Your task to perform on an android device: uninstall "Viber Messenger" Image 0: 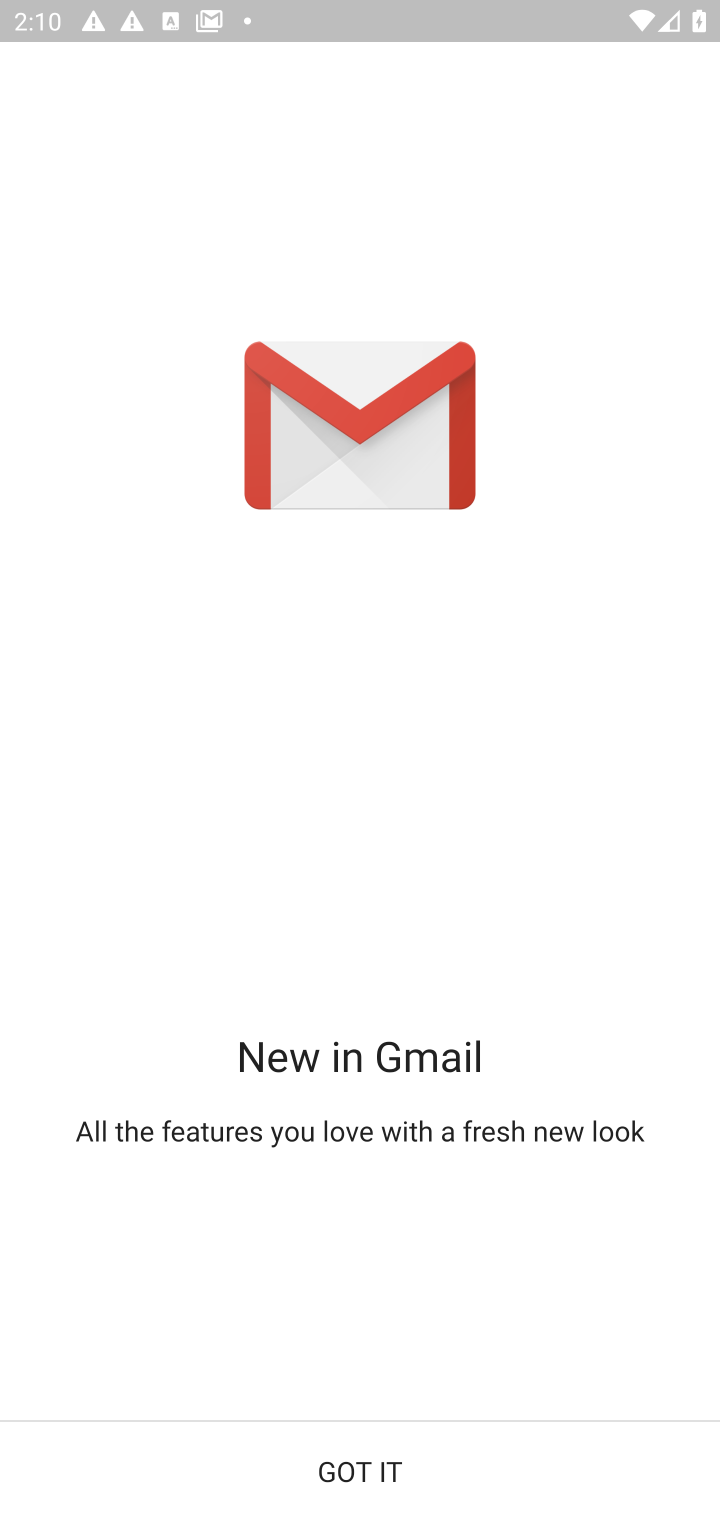
Step 0: press home button
Your task to perform on an android device: uninstall "Viber Messenger" Image 1: 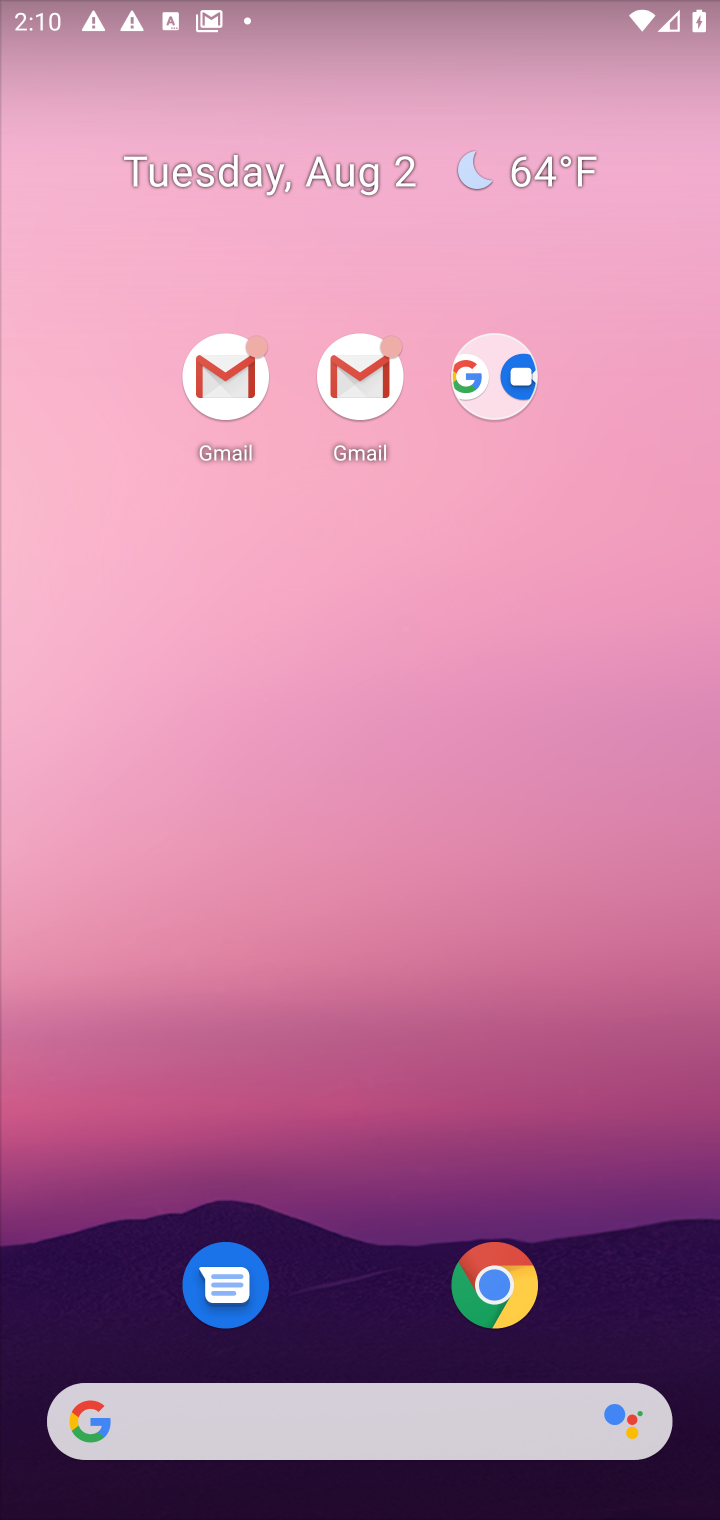
Step 1: click (377, 919)
Your task to perform on an android device: uninstall "Viber Messenger" Image 2: 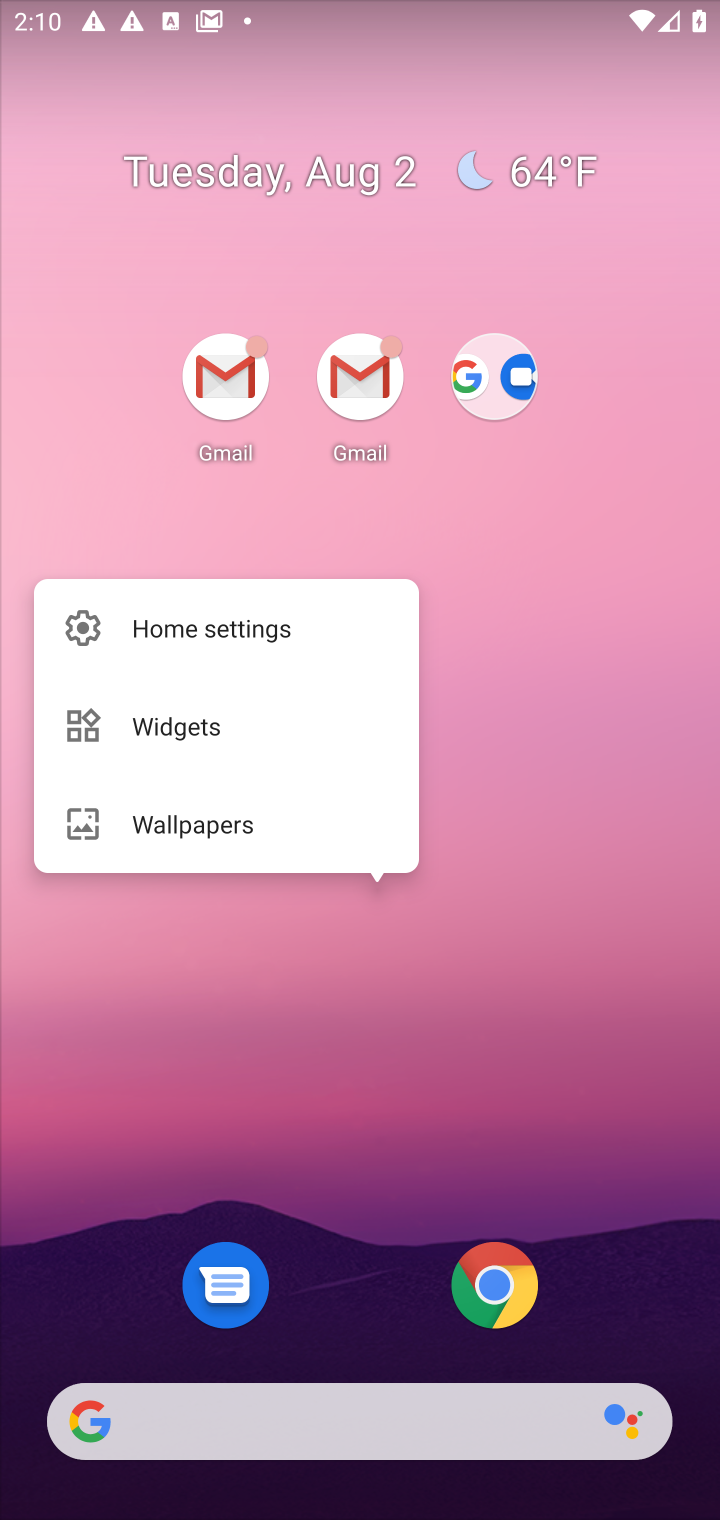
Step 2: drag from (353, 736) to (357, 406)
Your task to perform on an android device: uninstall "Viber Messenger" Image 3: 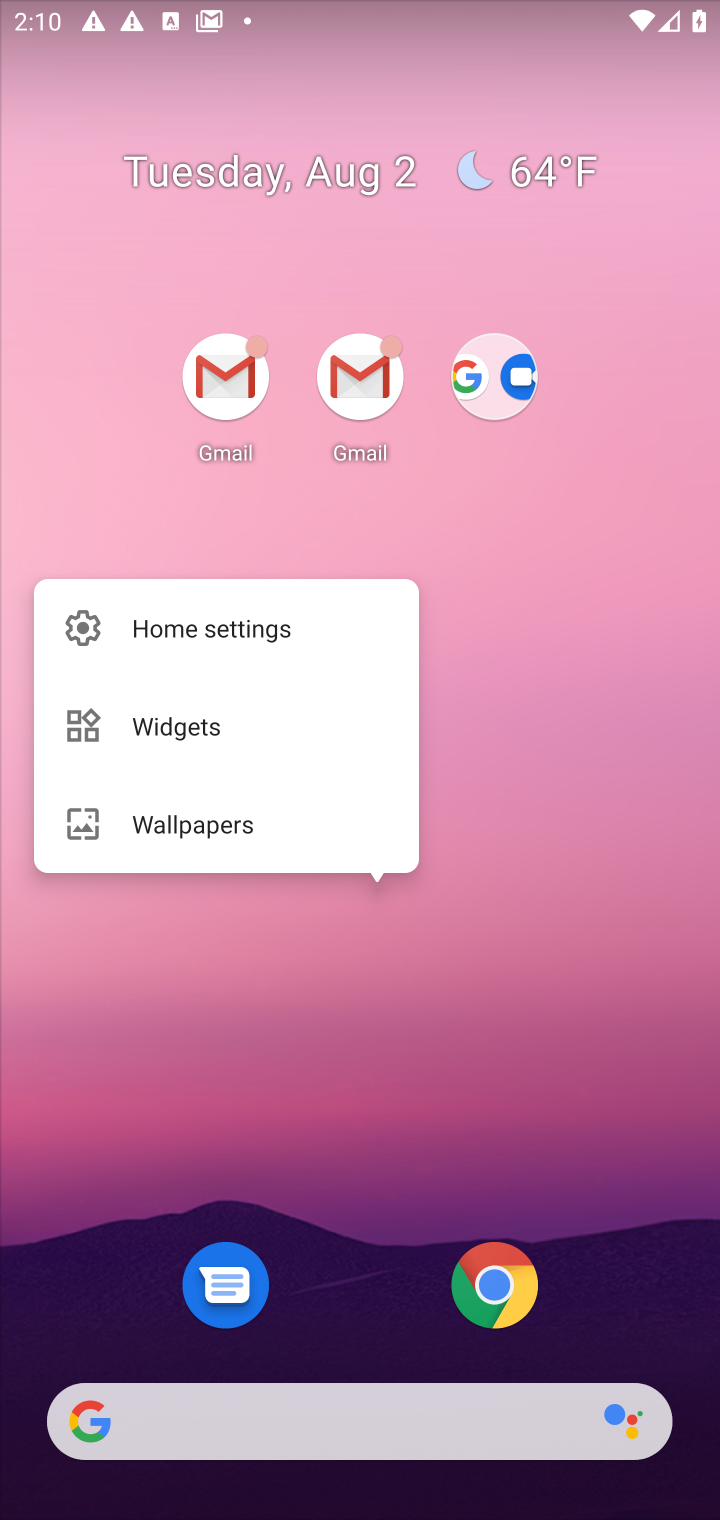
Step 3: click (528, 905)
Your task to perform on an android device: uninstall "Viber Messenger" Image 4: 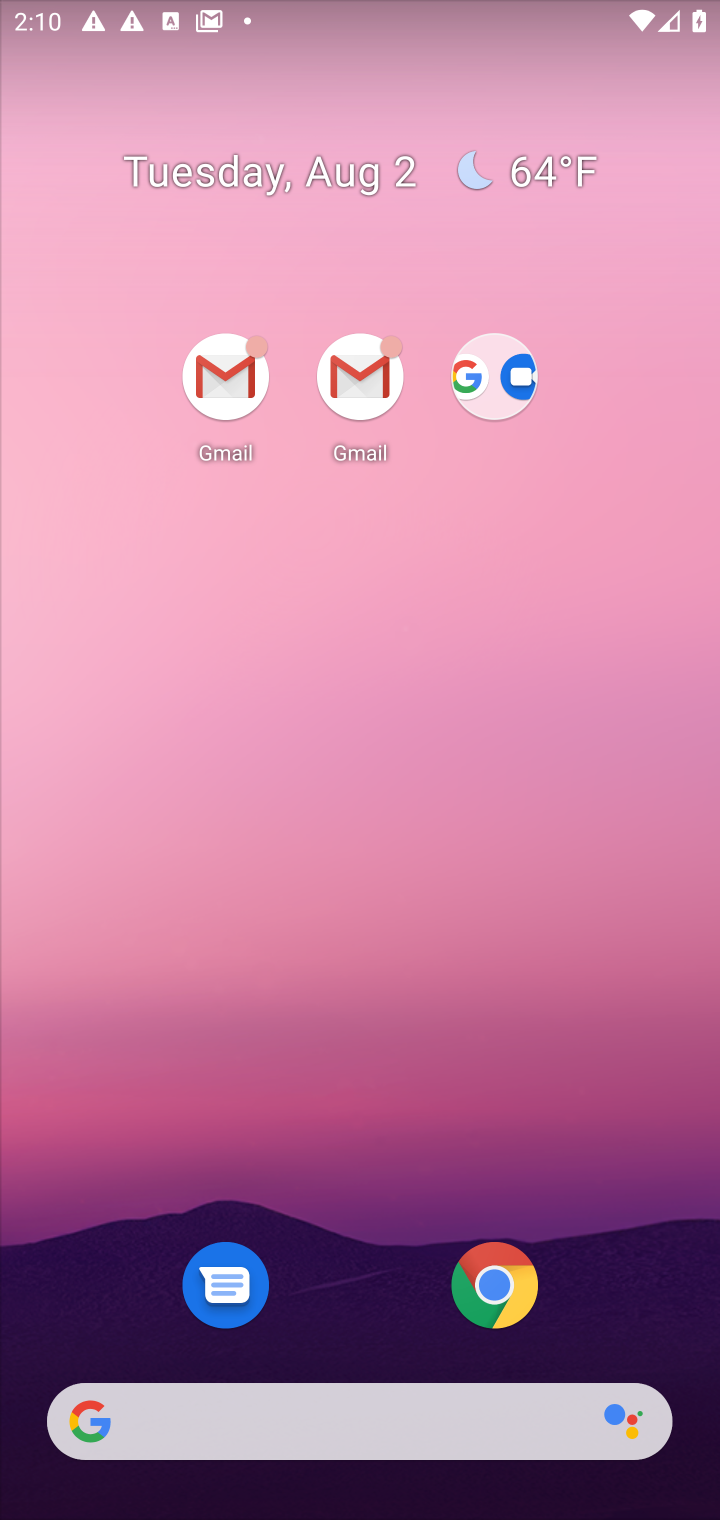
Step 4: click (528, 905)
Your task to perform on an android device: uninstall "Viber Messenger" Image 5: 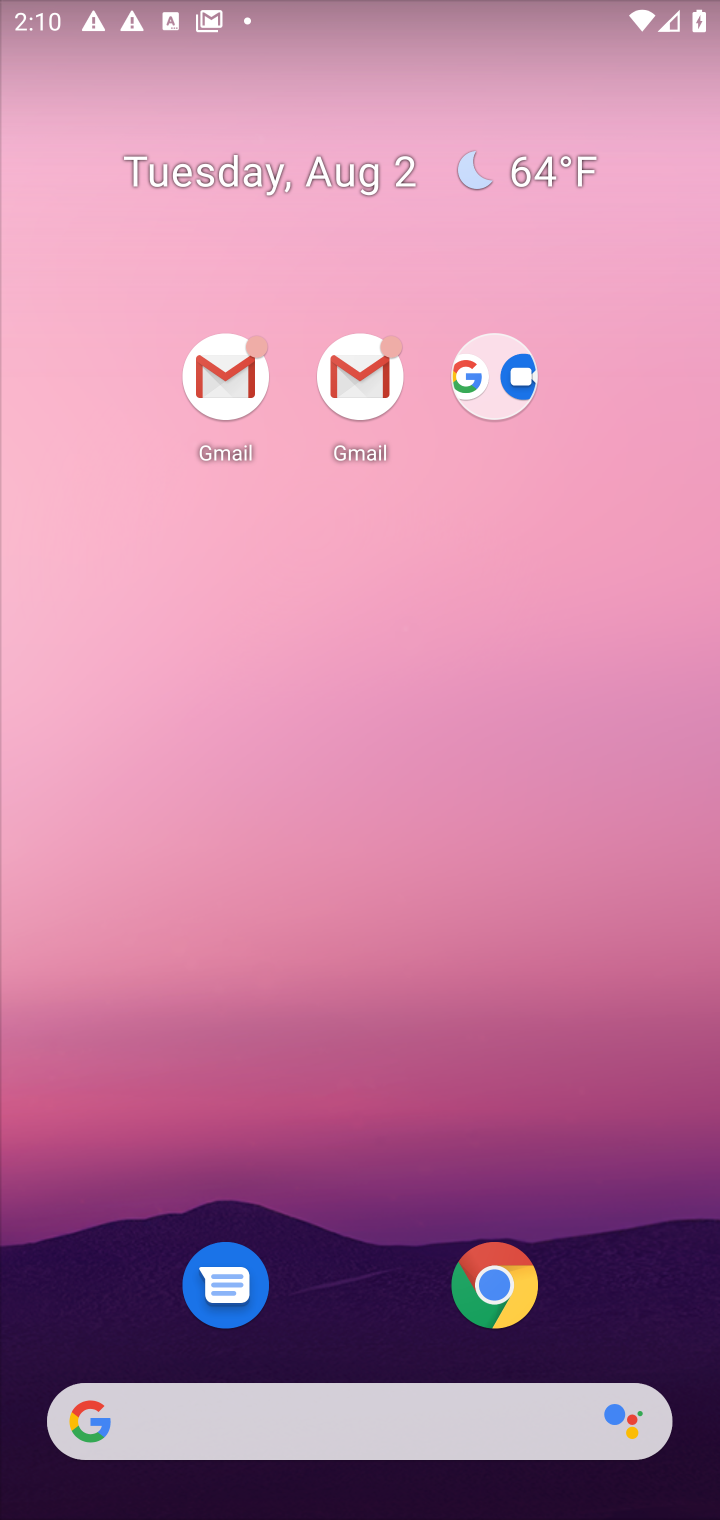
Step 5: drag from (330, 1234) to (413, 85)
Your task to perform on an android device: uninstall "Viber Messenger" Image 6: 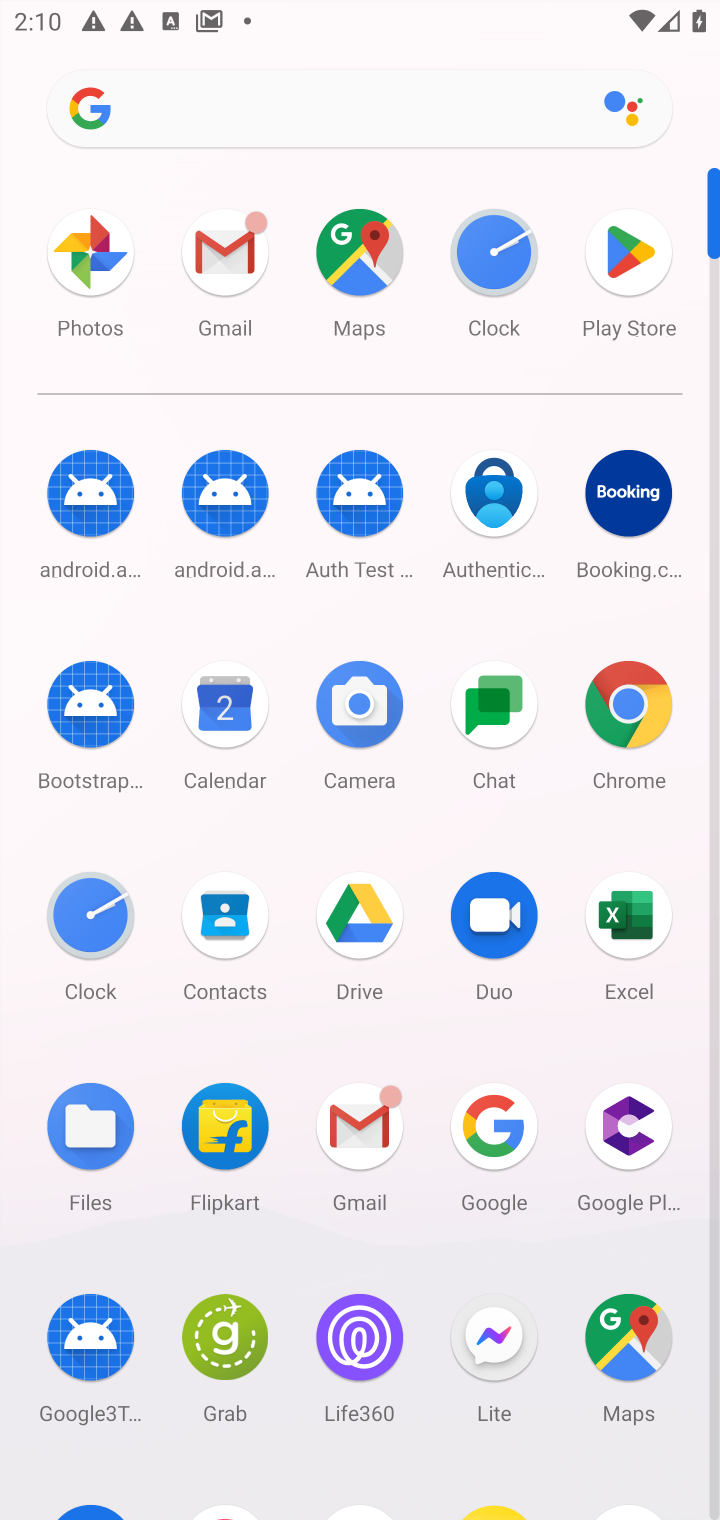
Step 6: drag from (428, 1117) to (524, 315)
Your task to perform on an android device: uninstall "Viber Messenger" Image 7: 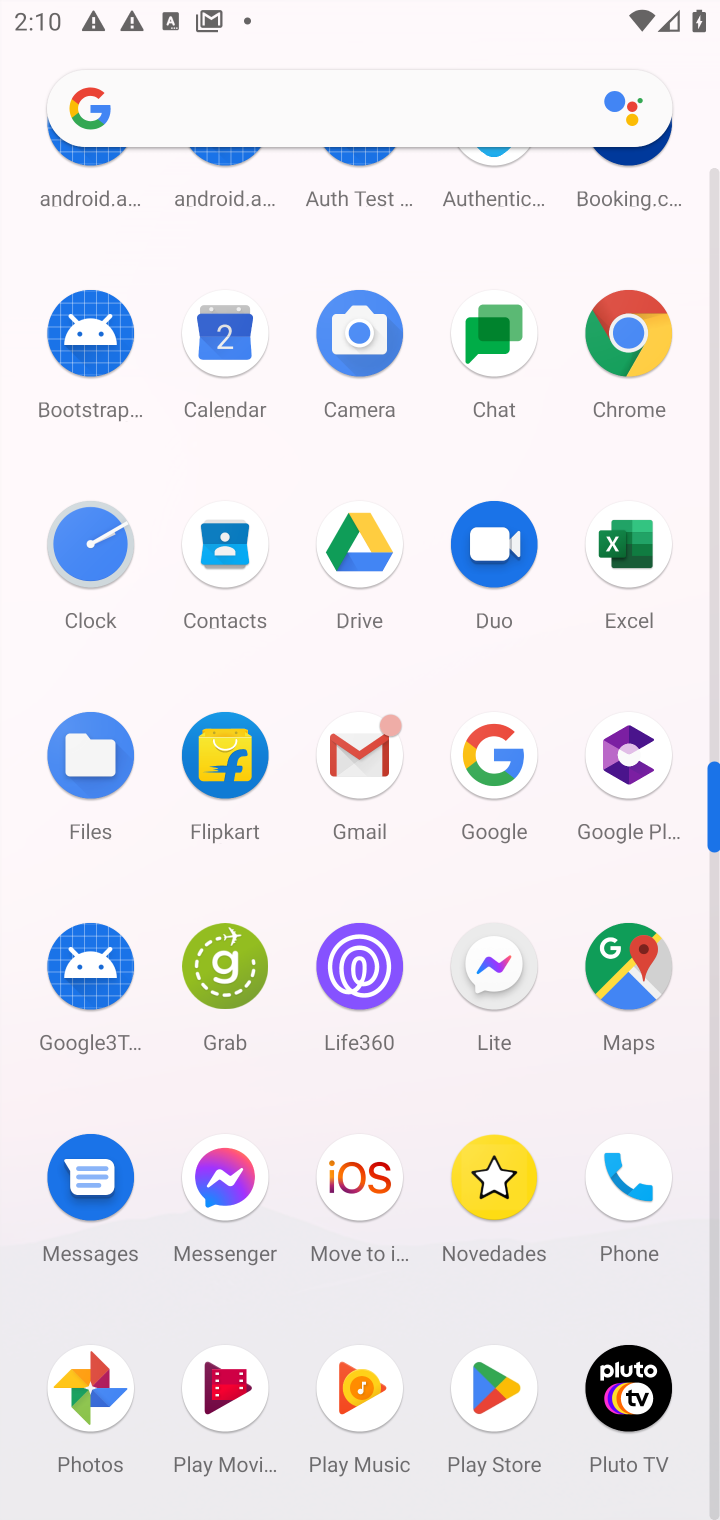
Step 7: click (487, 1385)
Your task to perform on an android device: uninstall "Viber Messenger" Image 8: 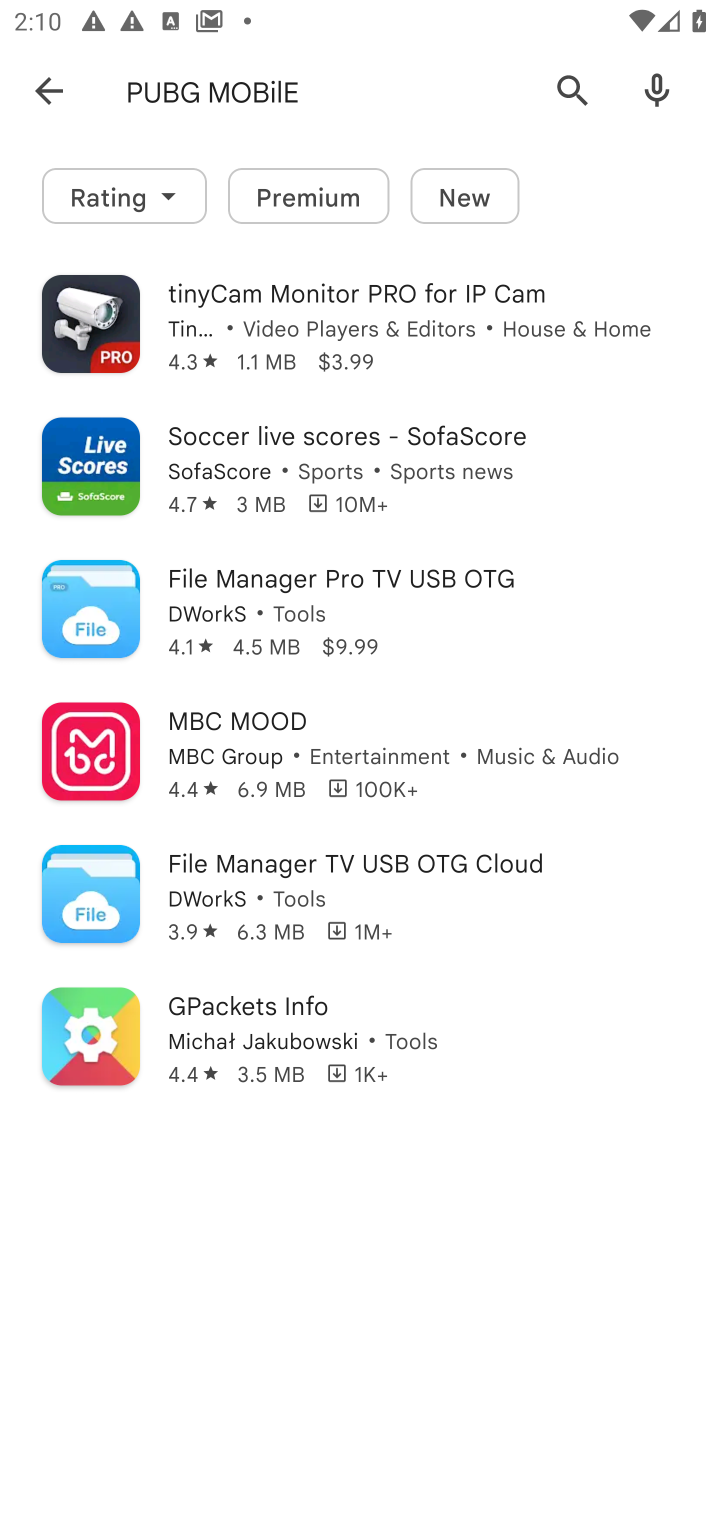
Step 8: click (317, 73)
Your task to perform on an android device: uninstall "Viber Messenger" Image 9: 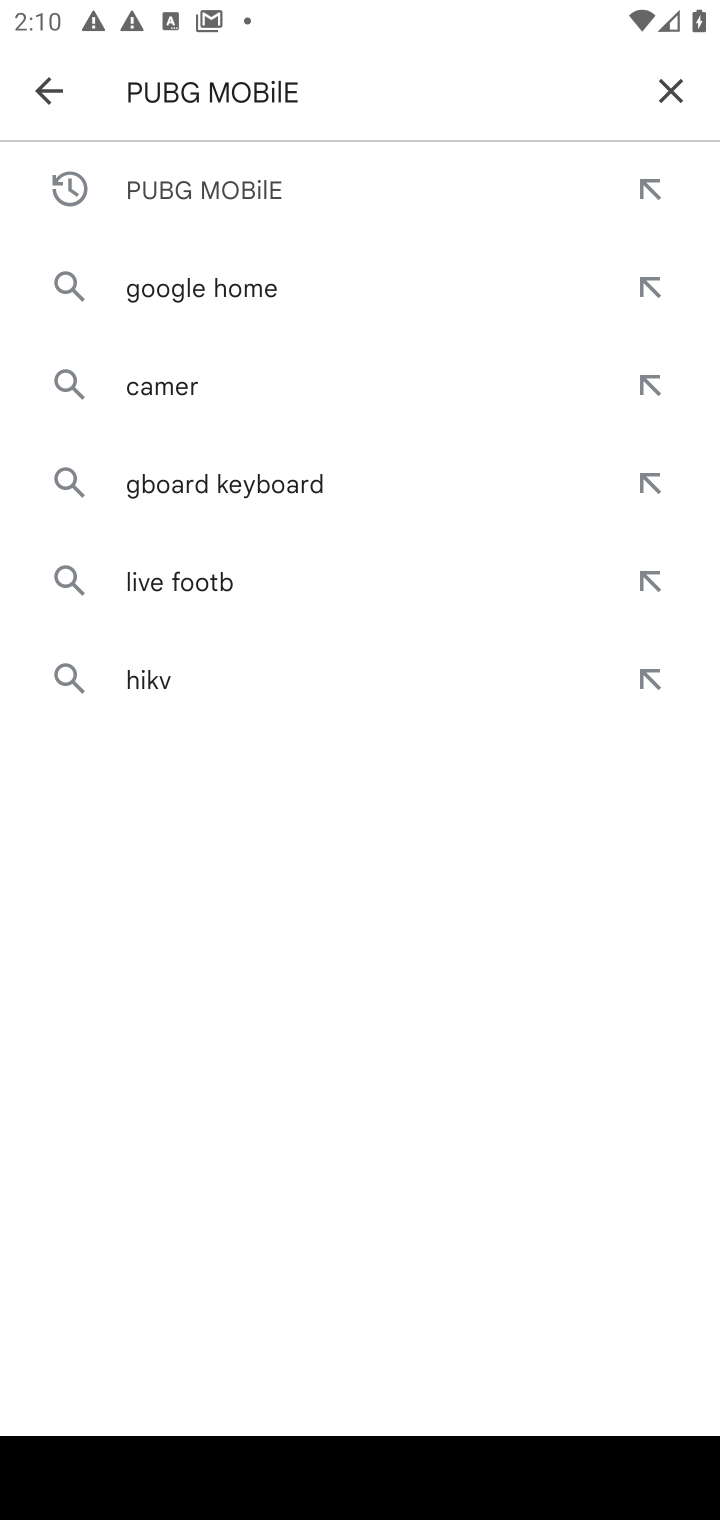
Step 9: click (694, 101)
Your task to perform on an android device: uninstall "Viber Messenger" Image 10: 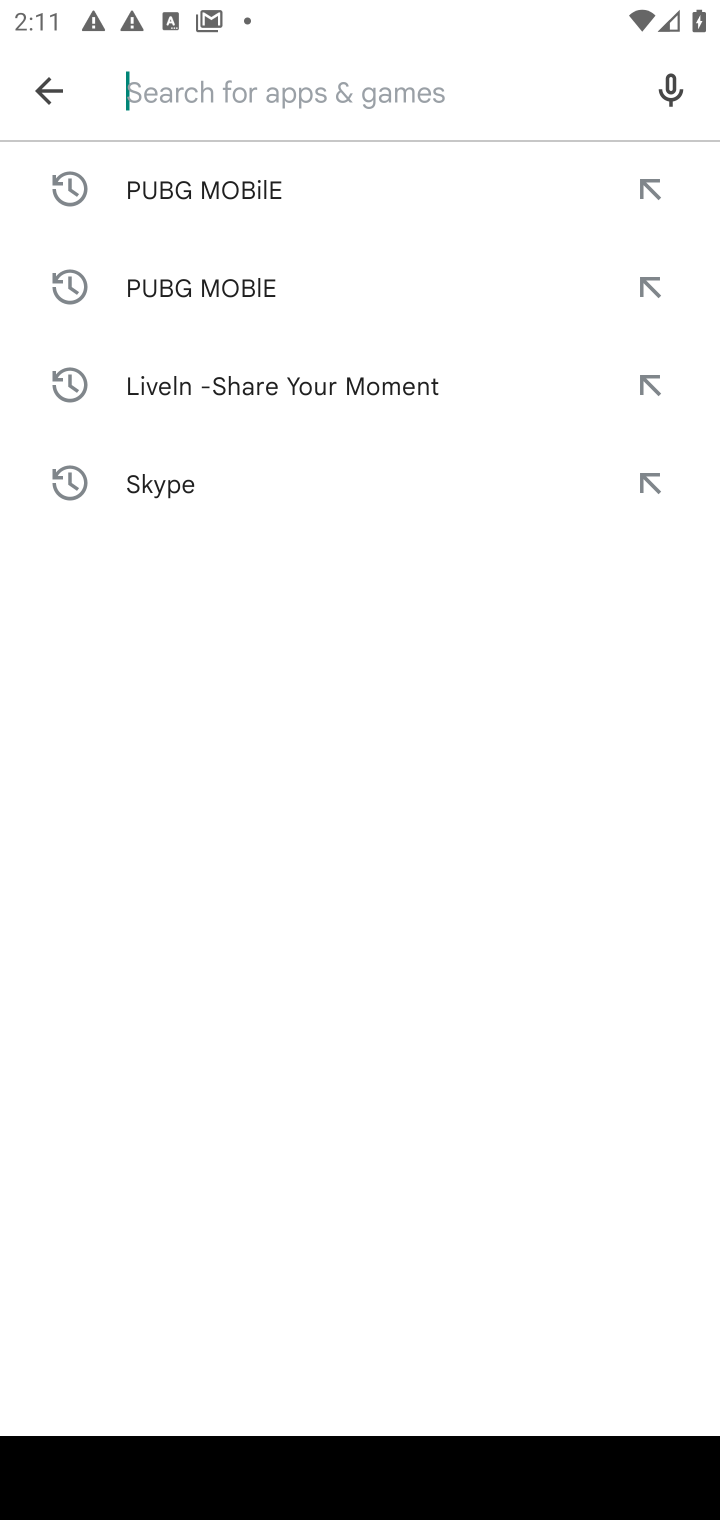
Step 10: type "Viber Messenger"
Your task to perform on an android device: uninstall "Viber Messenger" Image 11: 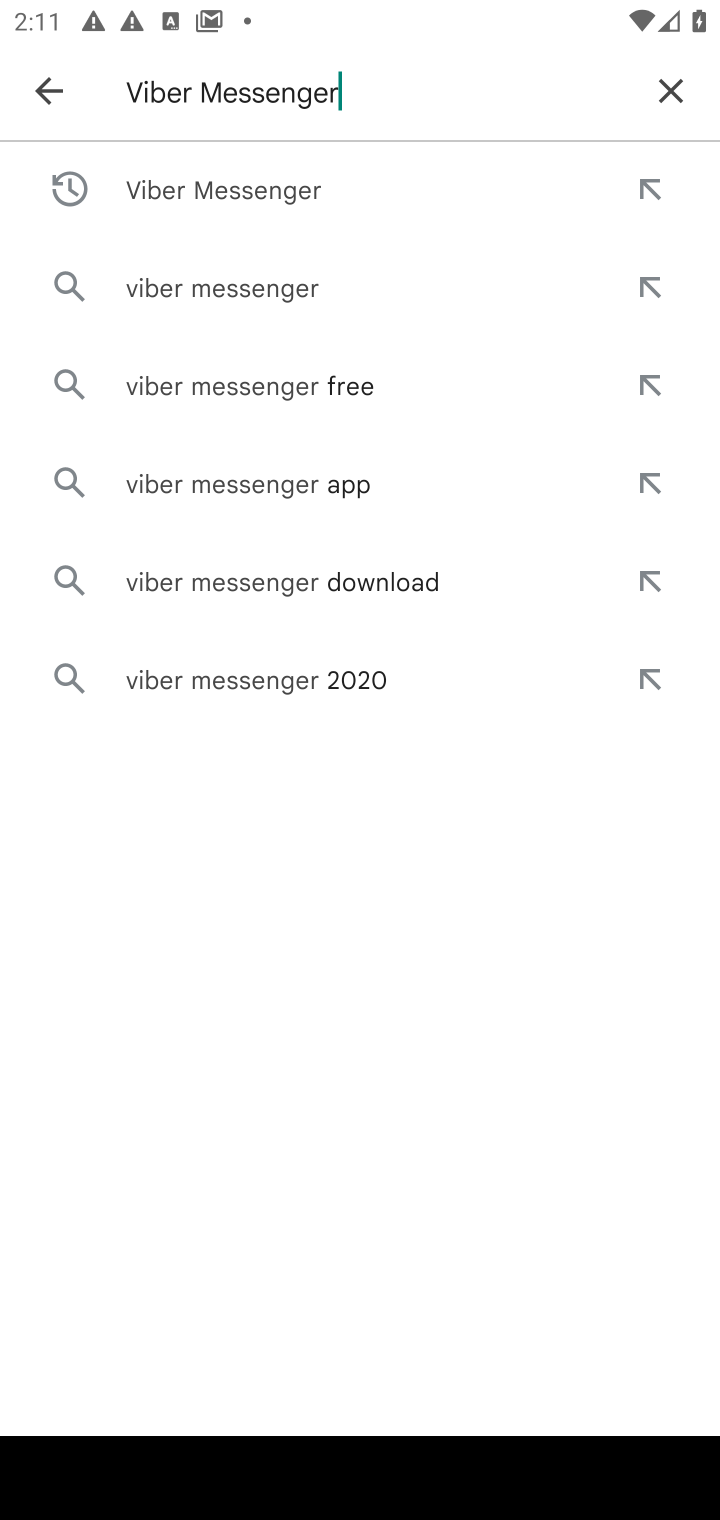
Step 11: press enter
Your task to perform on an android device: uninstall "Viber Messenger" Image 12: 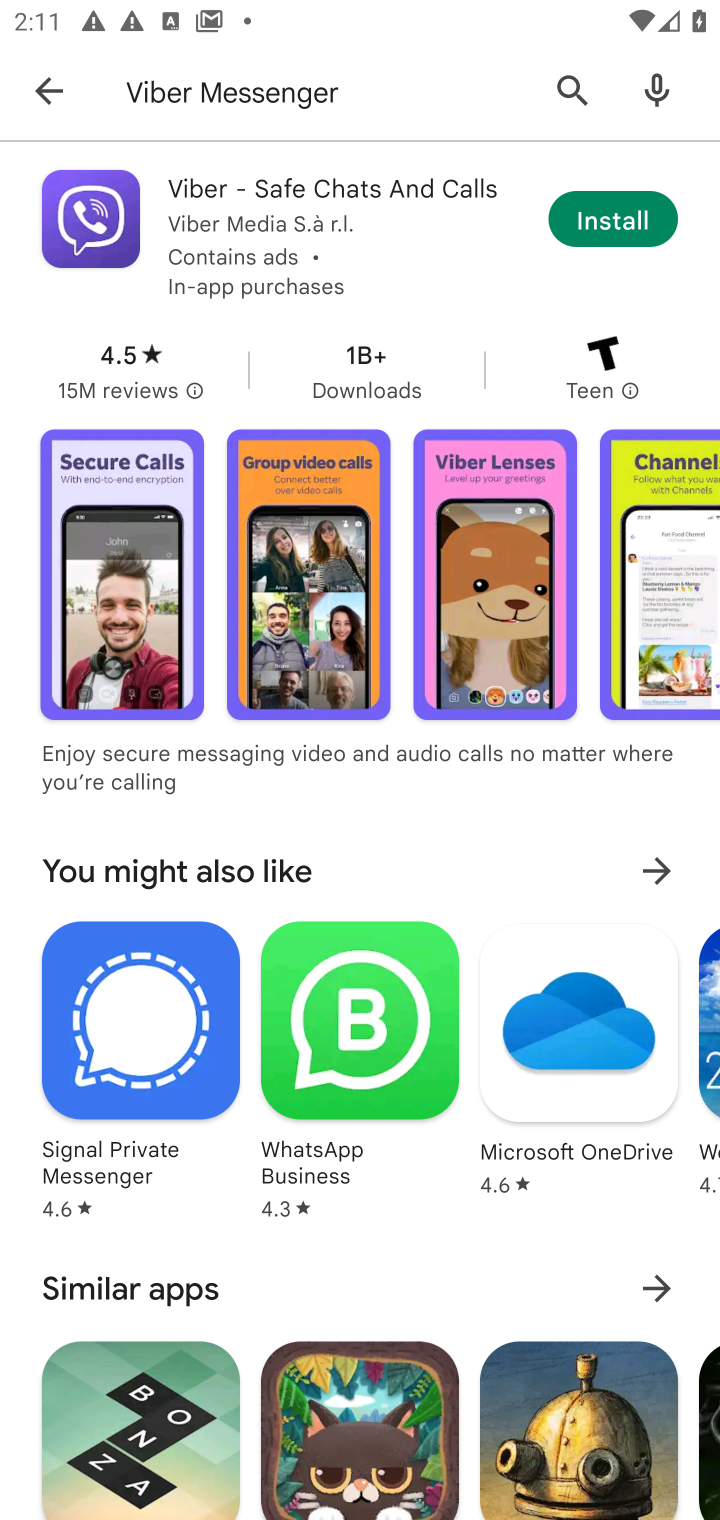
Step 12: task complete